Your task to perform on an android device: Open my contact list Image 0: 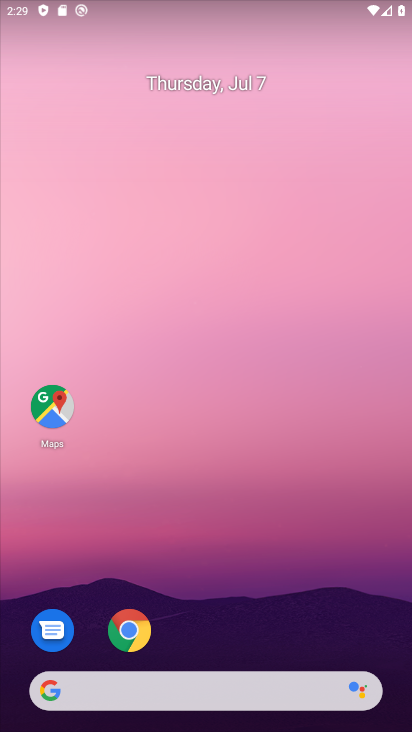
Step 0: drag from (184, 609) to (223, 390)
Your task to perform on an android device: Open my contact list Image 1: 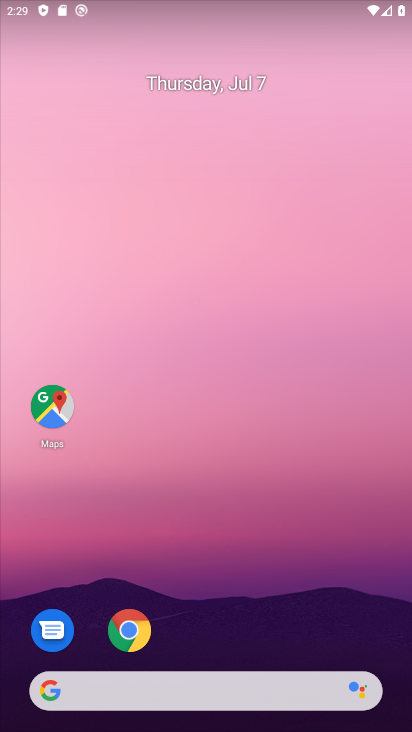
Step 1: drag from (254, 589) to (267, 207)
Your task to perform on an android device: Open my contact list Image 2: 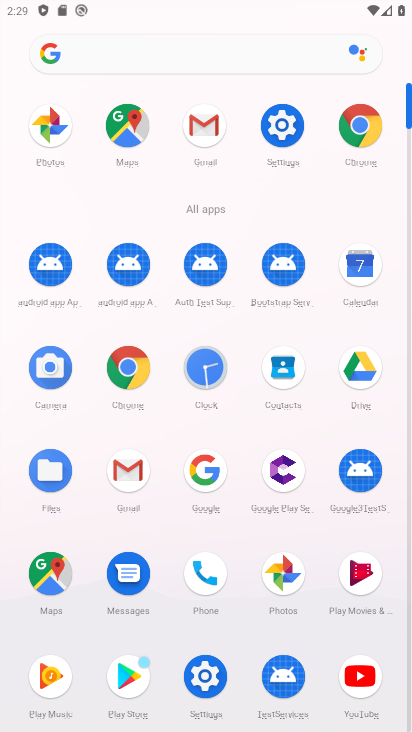
Step 2: click (196, 582)
Your task to perform on an android device: Open my contact list Image 3: 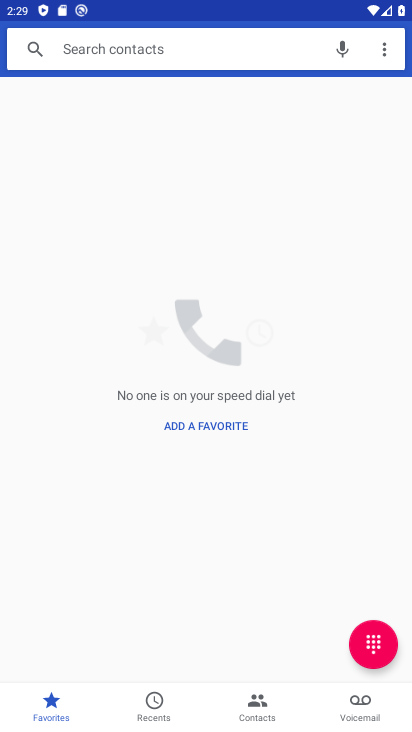
Step 3: click (249, 700)
Your task to perform on an android device: Open my contact list Image 4: 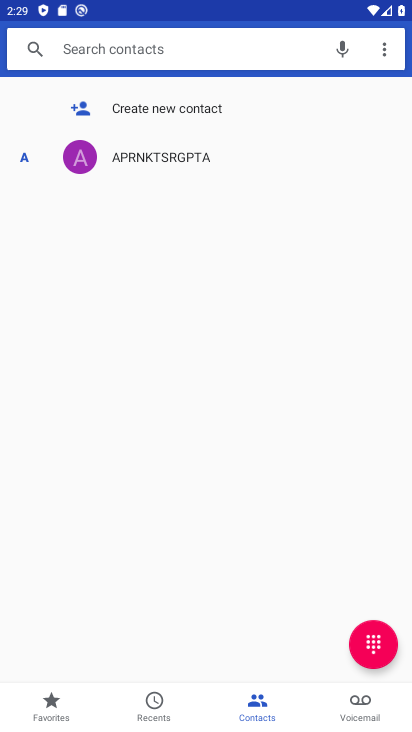
Step 4: click (249, 700)
Your task to perform on an android device: Open my contact list Image 5: 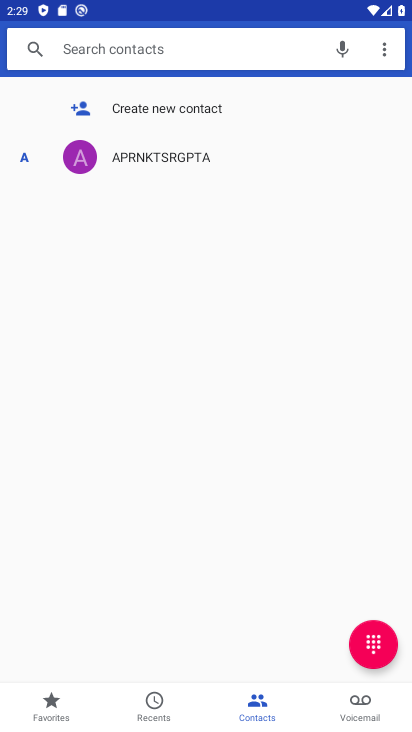
Step 5: task complete